Your task to perform on an android device: Clear the shopping cart on target. Add "panasonic triple a" to the cart on target, then select checkout. Image 0: 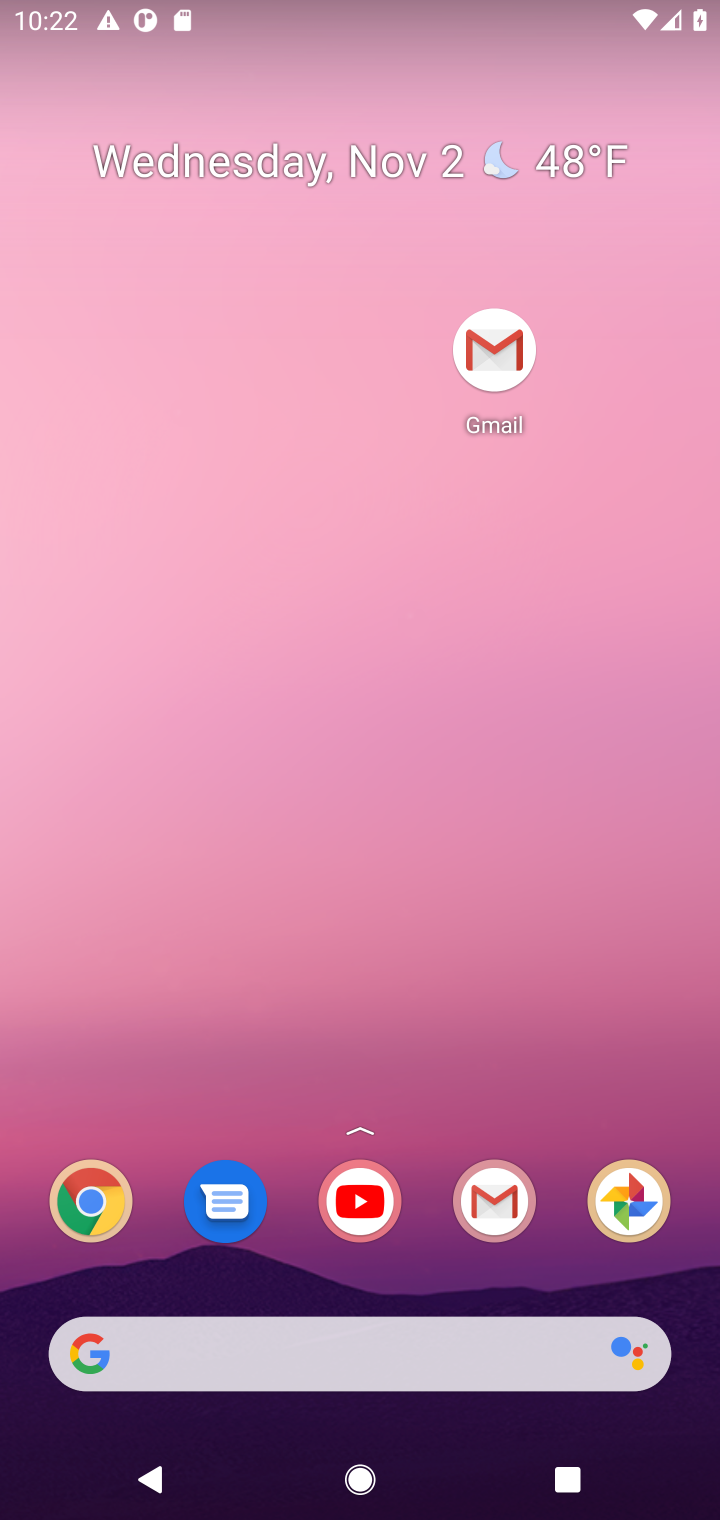
Step 0: drag from (417, 1154) to (287, 302)
Your task to perform on an android device: Clear the shopping cart on target. Add "panasonic triple a" to the cart on target, then select checkout. Image 1: 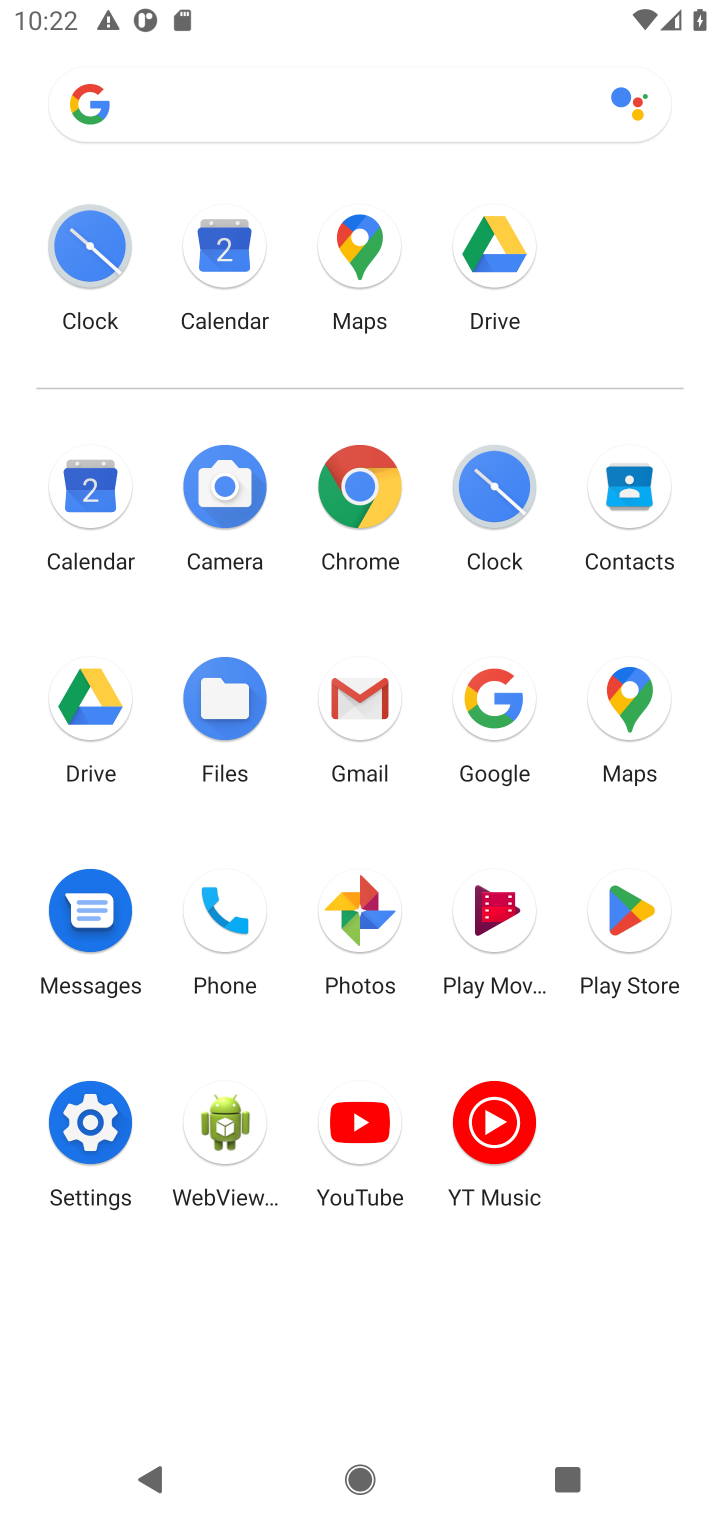
Step 1: click (363, 494)
Your task to perform on an android device: Clear the shopping cart on target. Add "panasonic triple a" to the cart on target, then select checkout. Image 2: 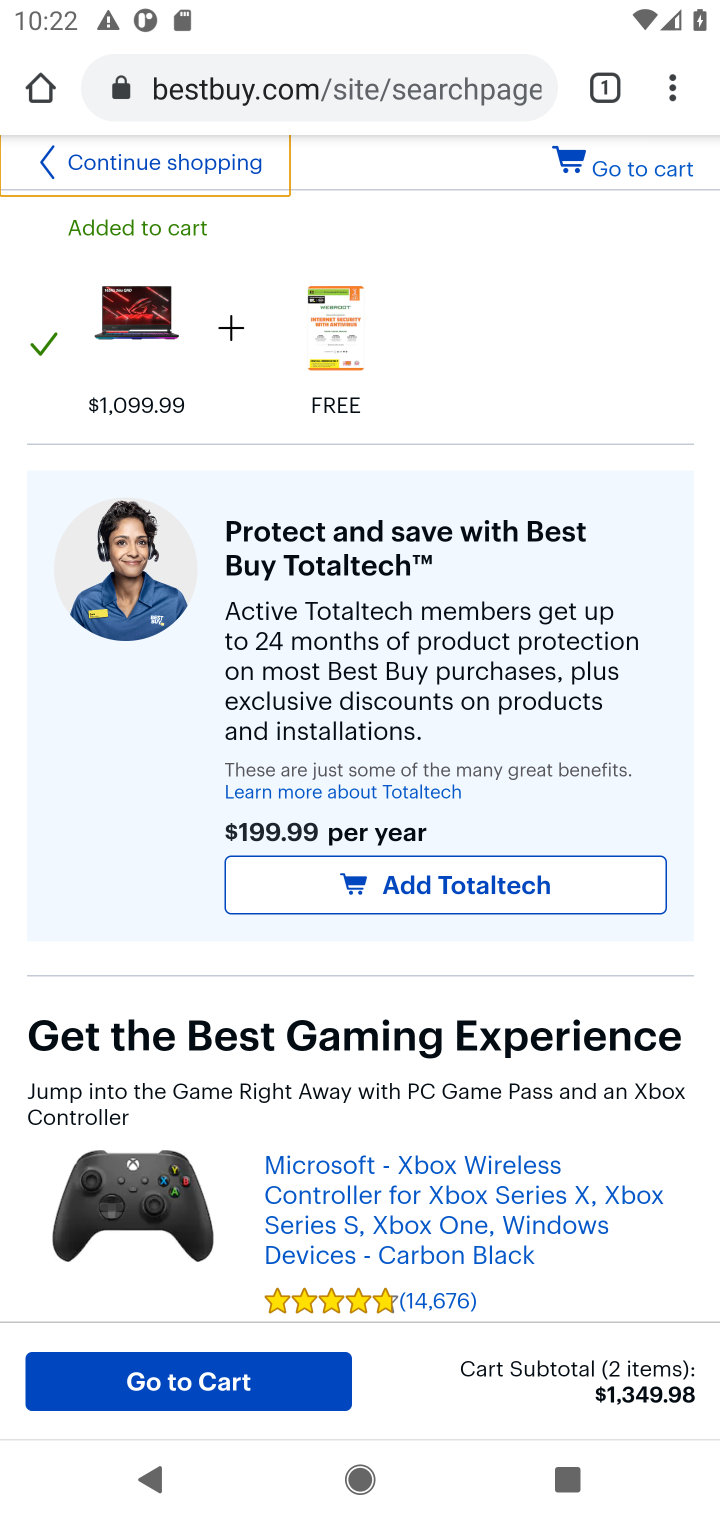
Step 2: click (430, 84)
Your task to perform on an android device: Clear the shopping cart on target. Add "panasonic triple a" to the cart on target, then select checkout. Image 3: 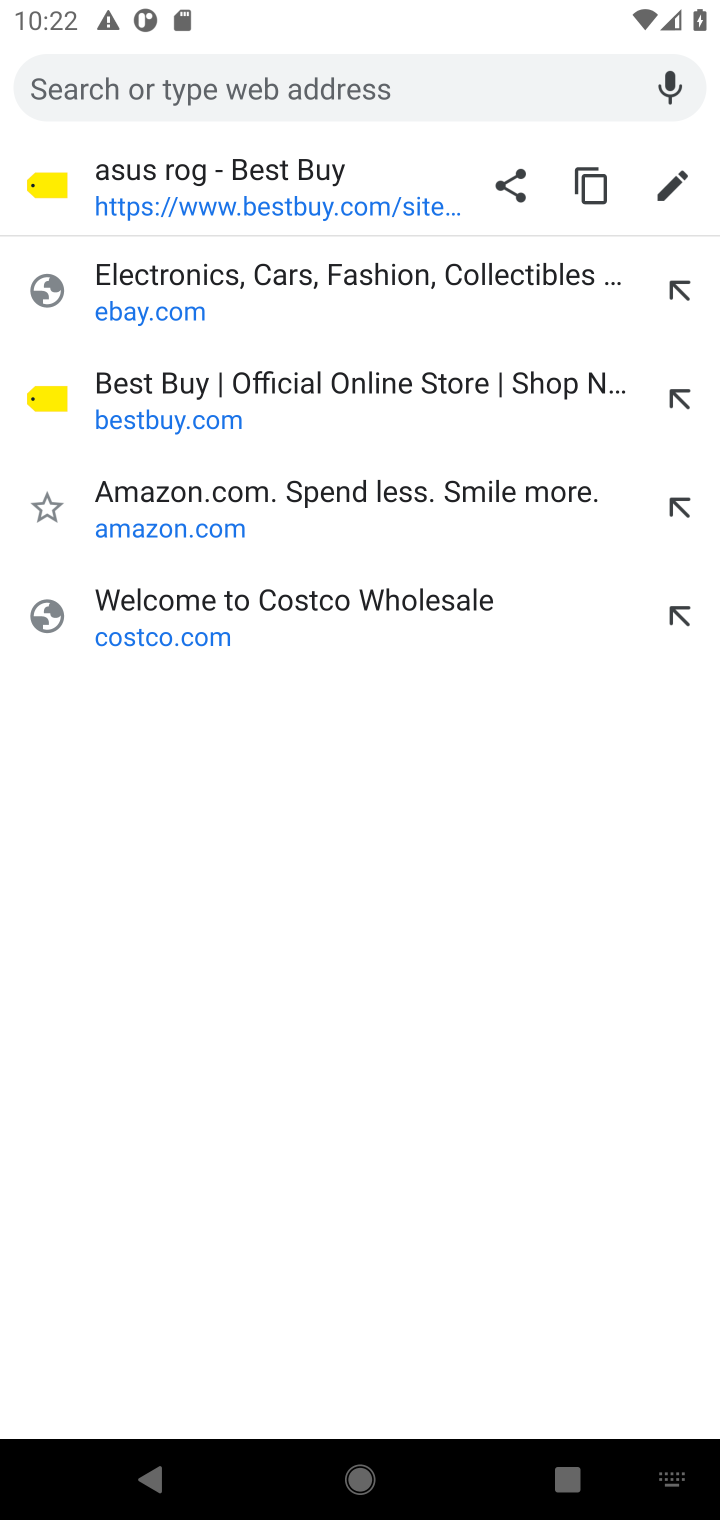
Step 3: type "target.com"
Your task to perform on an android device: Clear the shopping cart on target. Add "panasonic triple a" to the cart on target, then select checkout. Image 4: 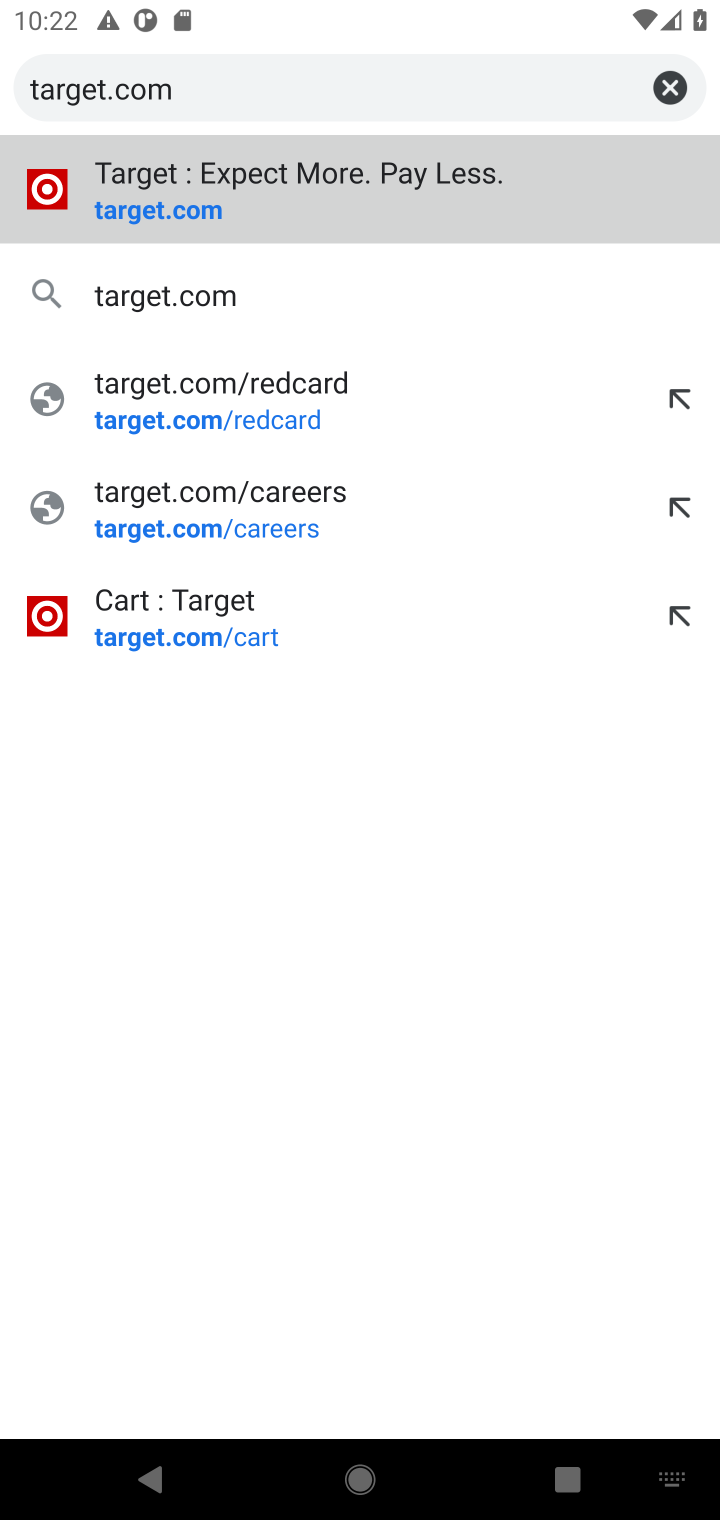
Step 4: press enter
Your task to perform on an android device: Clear the shopping cart on target. Add "panasonic triple a" to the cart on target, then select checkout. Image 5: 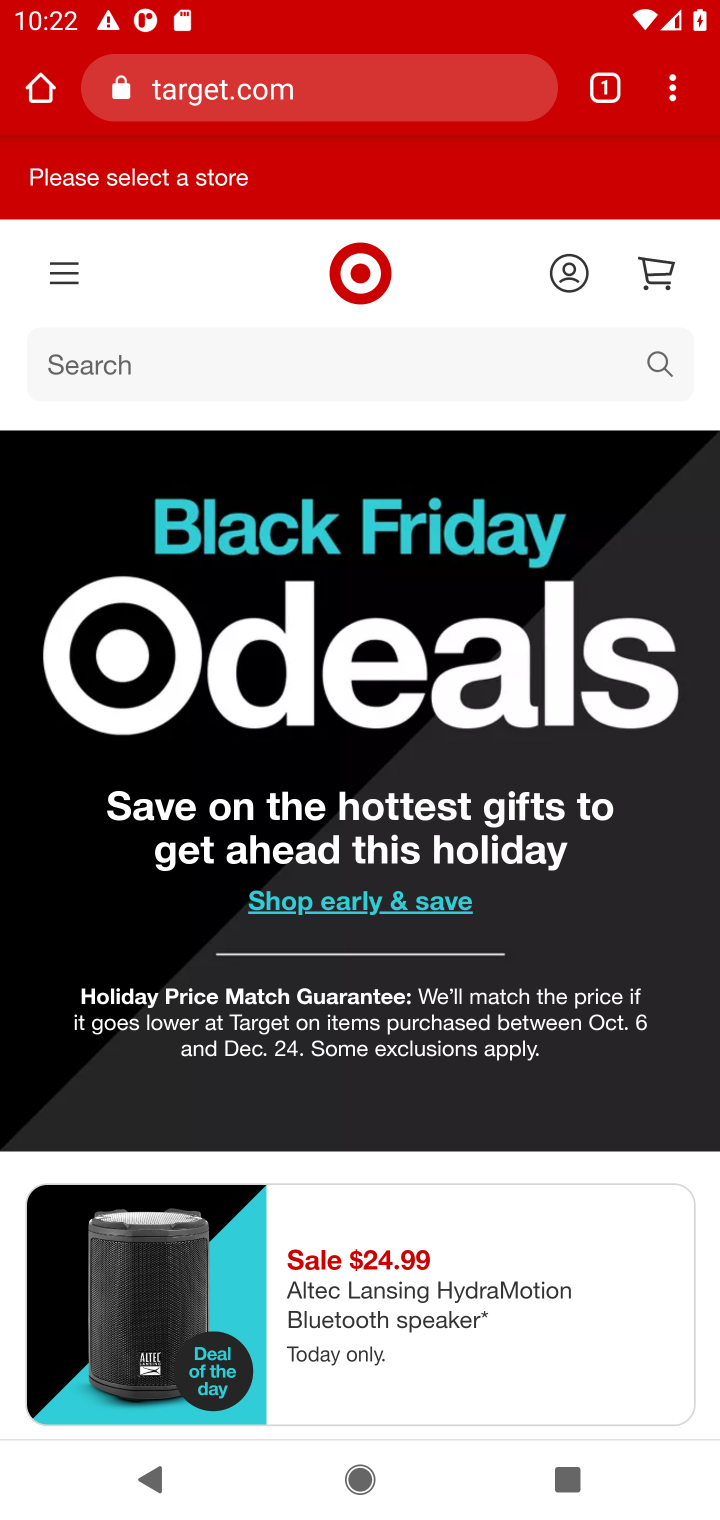
Step 5: click (273, 383)
Your task to perform on an android device: Clear the shopping cart on target. Add "panasonic triple a" to the cart on target, then select checkout. Image 6: 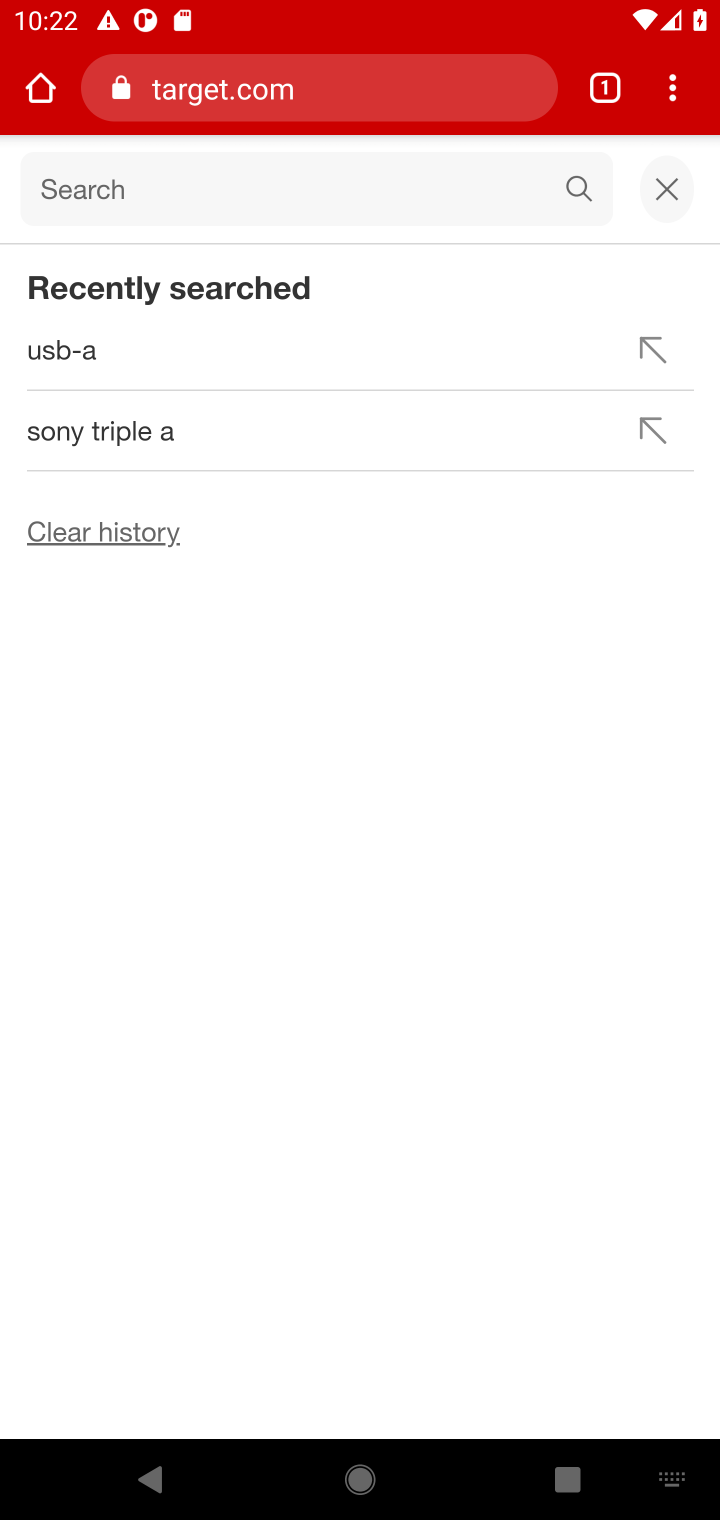
Step 6: type "panasonic triple a"
Your task to perform on an android device: Clear the shopping cart on target. Add "panasonic triple a" to the cart on target, then select checkout. Image 7: 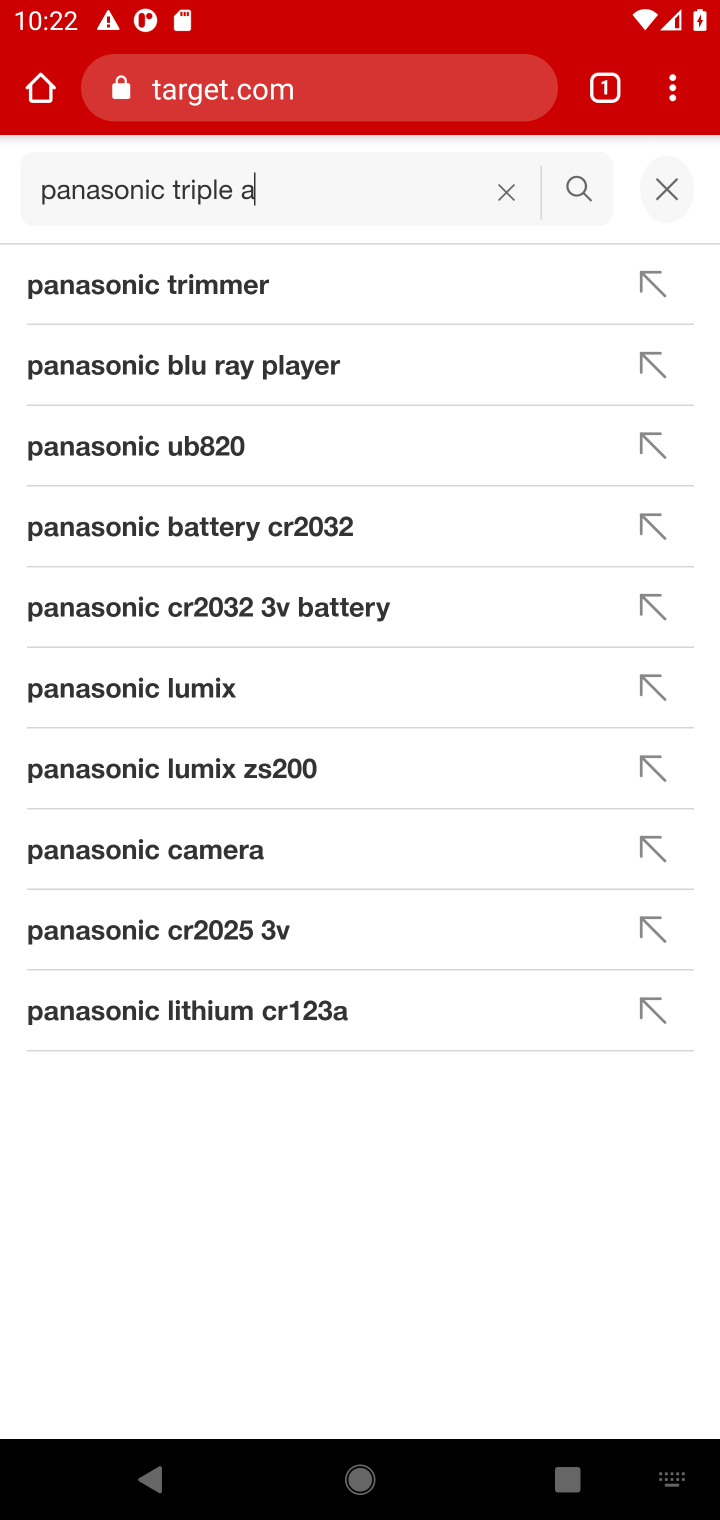
Step 7: press enter
Your task to perform on an android device: Clear the shopping cart on target. Add "panasonic triple a" to the cart on target, then select checkout. Image 8: 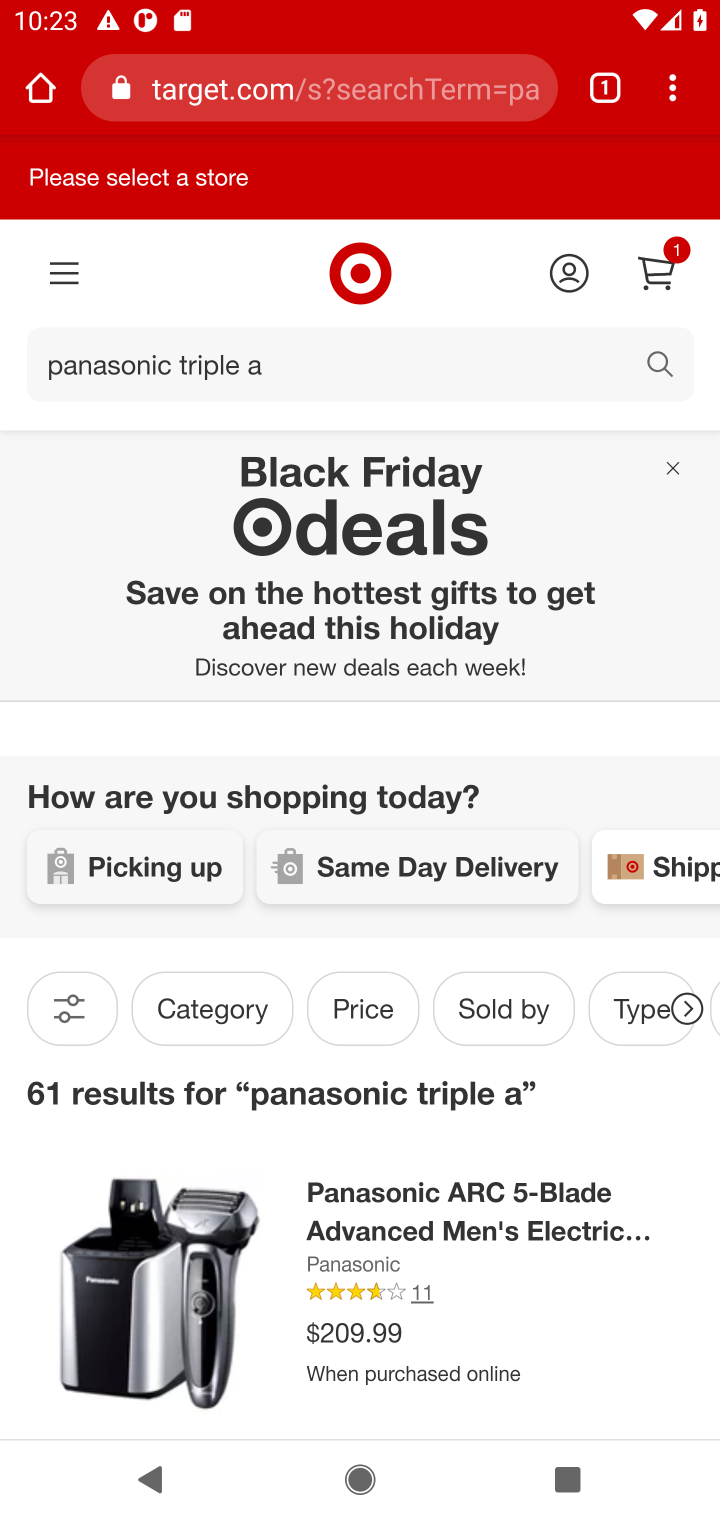
Step 8: drag from (506, 1313) to (481, 676)
Your task to perform on an android device: Clear the shopping cart on target. Add "panasonic triple a" to the cart on target, then select checkout. Image 9: 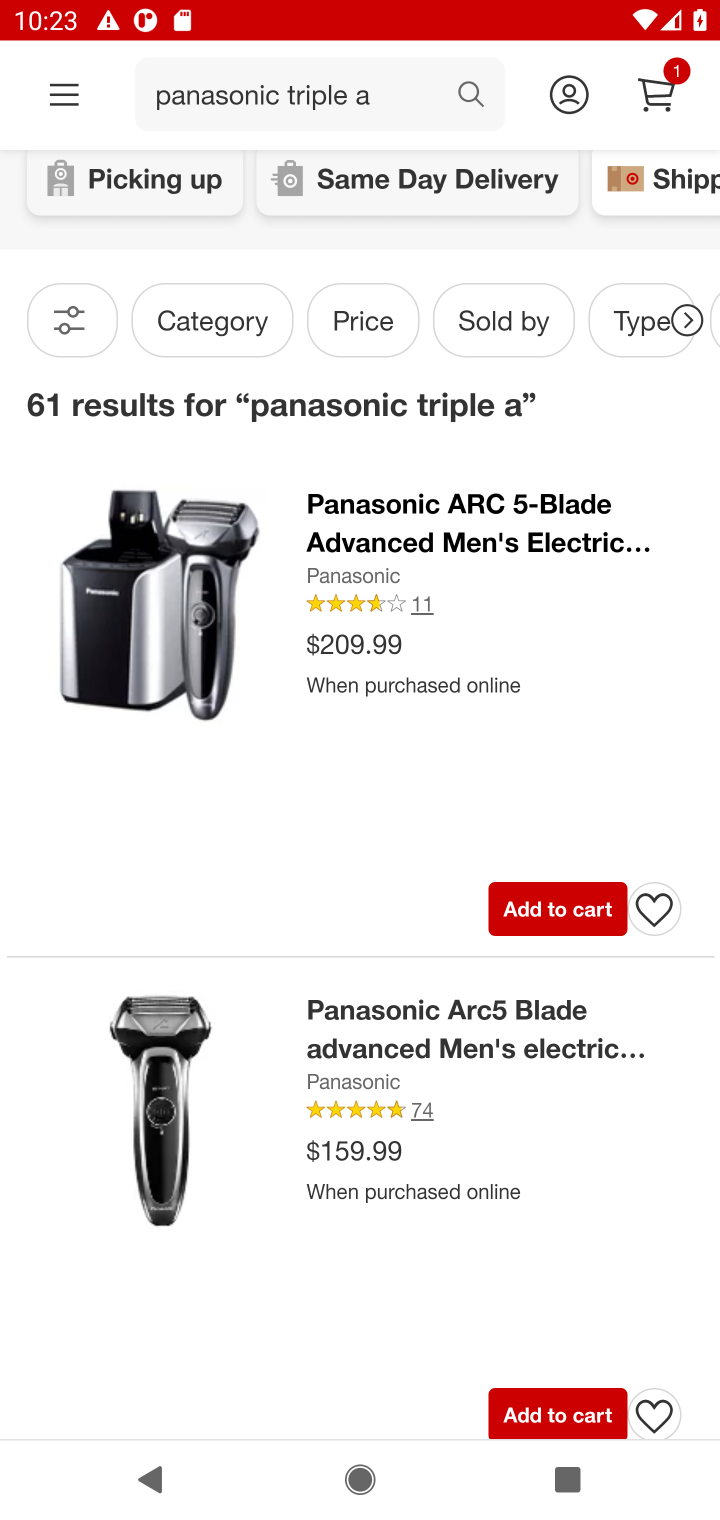
Step 9: drag from (314, 1384) to (397, 651)
Your task to perform on an android device: Clear the shopping cart on target. Add "panasonic triple a" to the cart on target, then select checkout. Image 10: 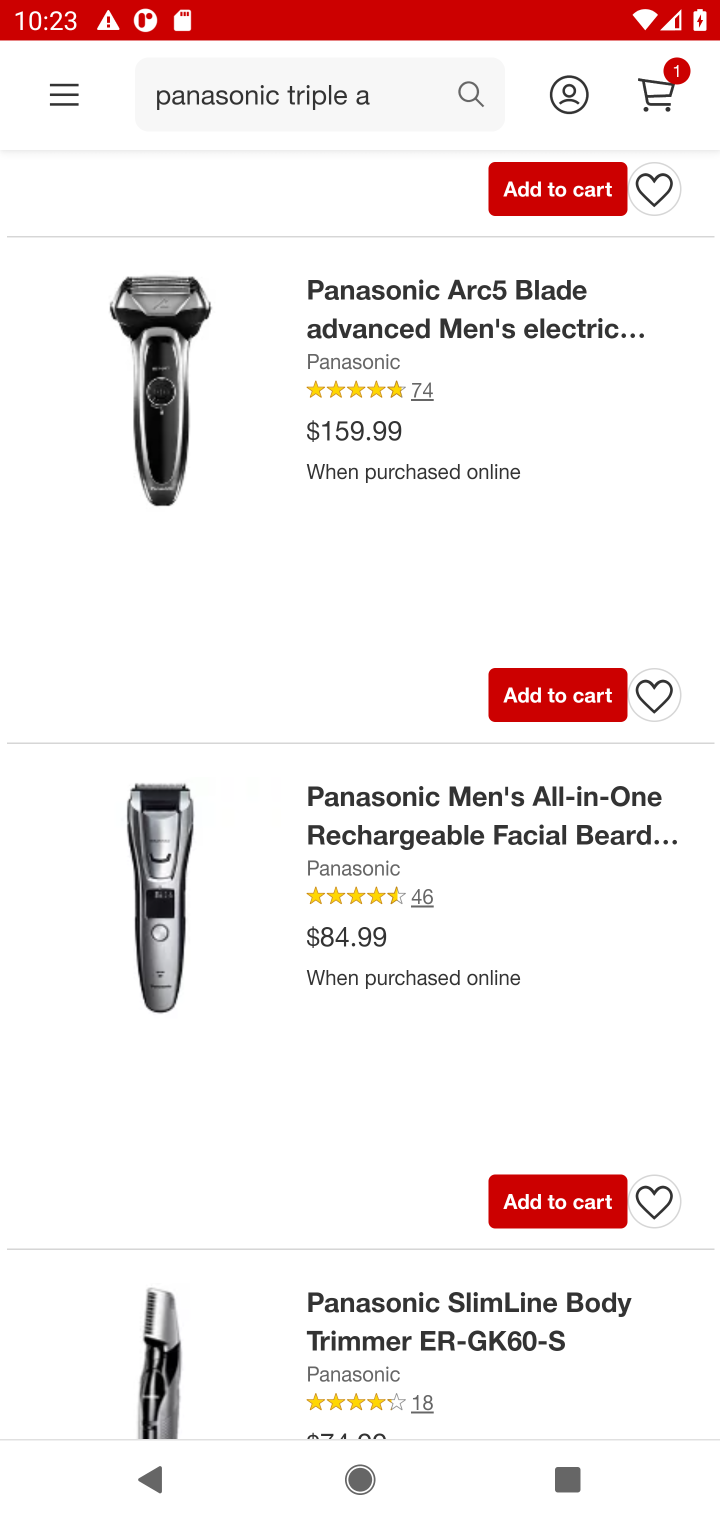
Step 10: drag from (316, 449) to (342, 1330)
Your task to perform on an android device: Clear the shopping cart on target. Add "panasonic triple a" to the cart on target, then select checkout. Image 11: 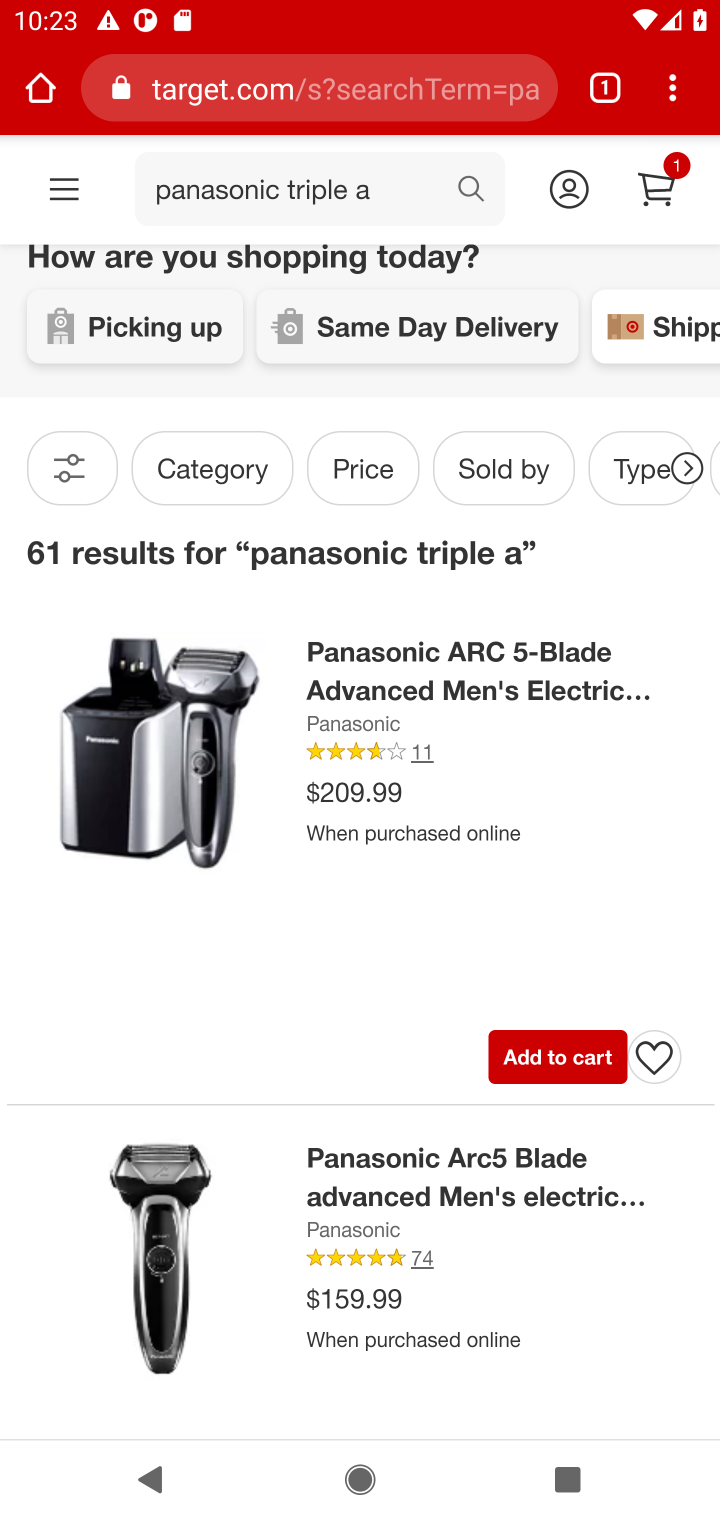
Step 11: click (375, 681)
Your task to perform on an android device: Clear the shopping cart on target. Add "panasonic triple a" to the cart on target, then select checkout. Image 12: 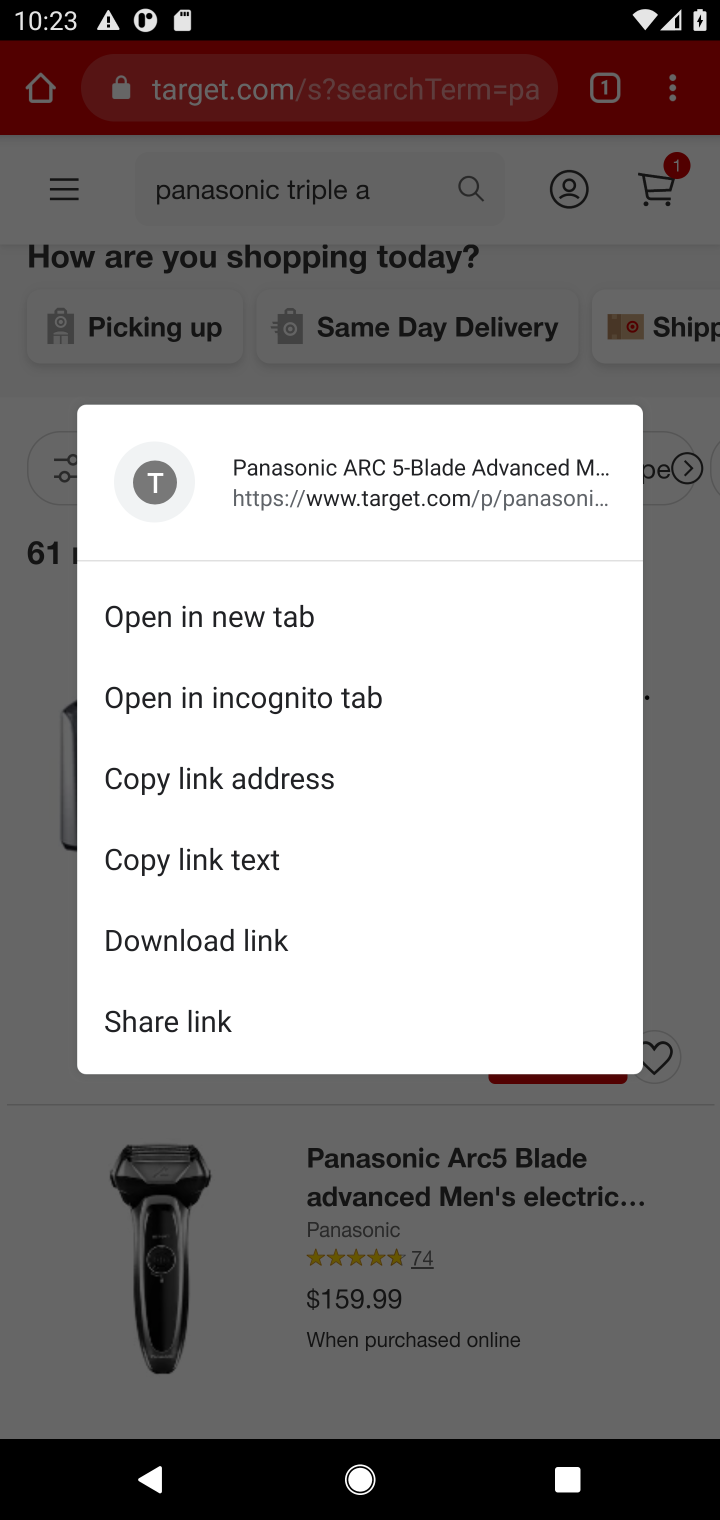
Step 12: click (17, 733)
Your task to perform on an android device: Clear the shopping cart on target. Add "panasonic triple a" to the cart on target, then select checkout. Image 13: 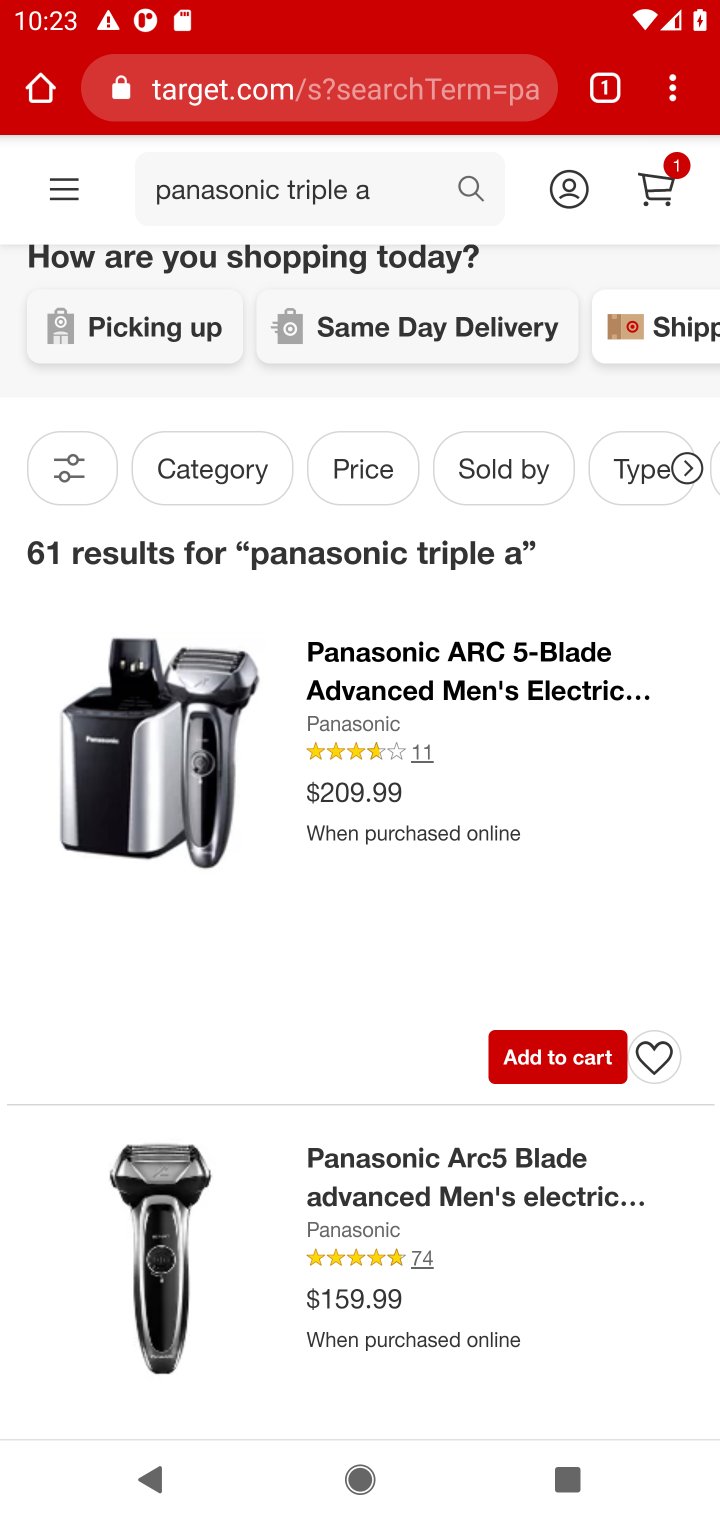
Step 13: click (402, 715)
Your task to perform on an android device: Clear the shopping cart on target. Add "panasonic triple a" to the cart on target, then select checkout. Image 14: 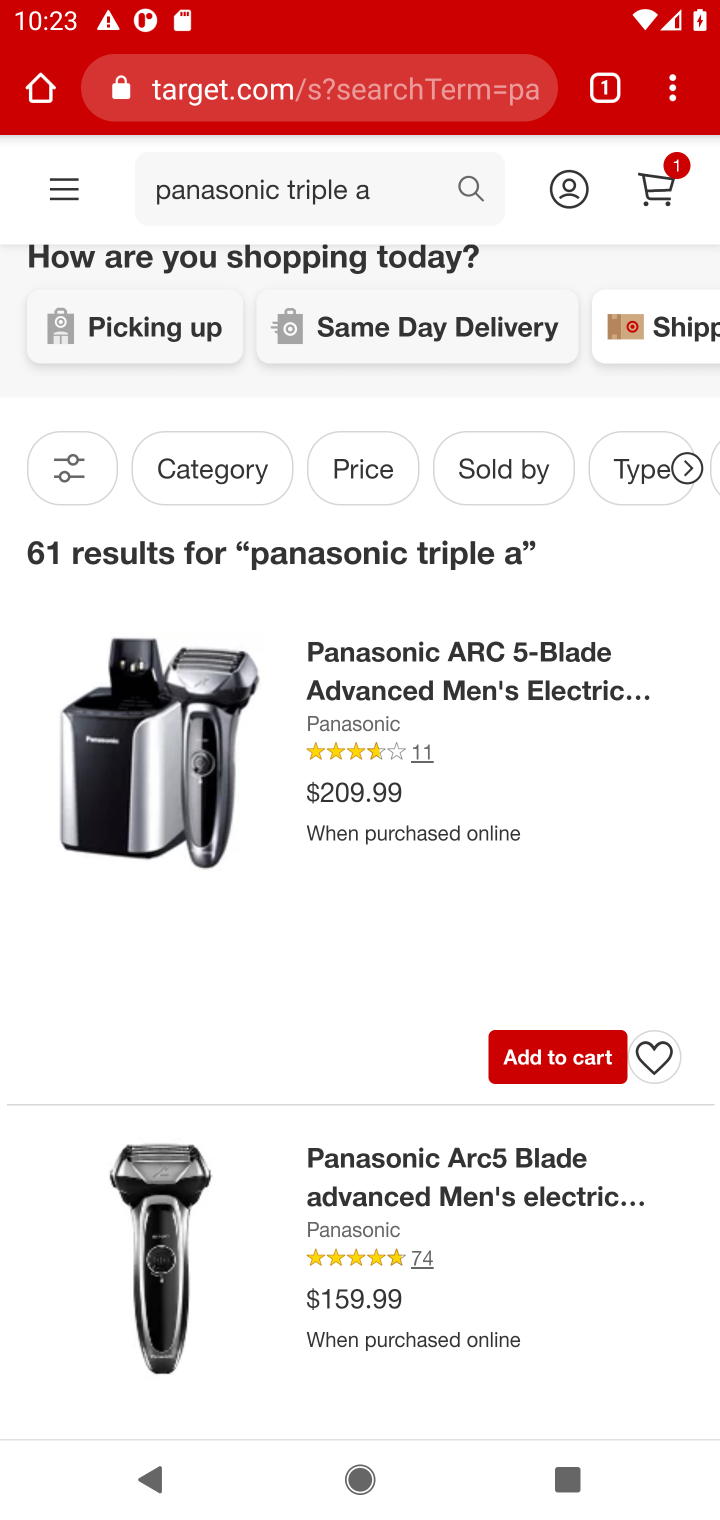
Step 14: click (494, 682)
Your task to perform on an android device: Clear the shopping cart on target. Add "panasonic triple a" to the cart on target, then select checkout. Image 15: 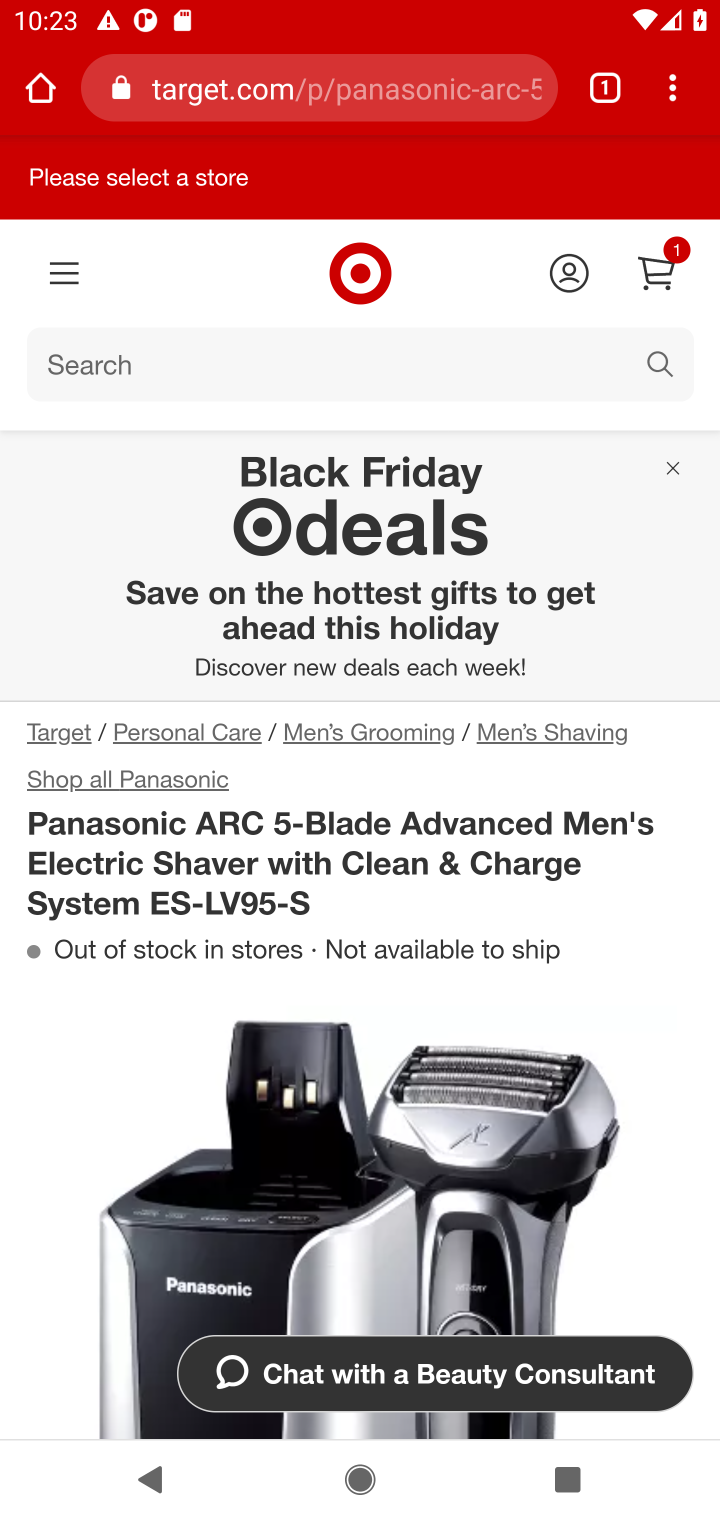
Step 15: task complete